Your task to perform on an android device: set default search engine in the chrome app Image 0: 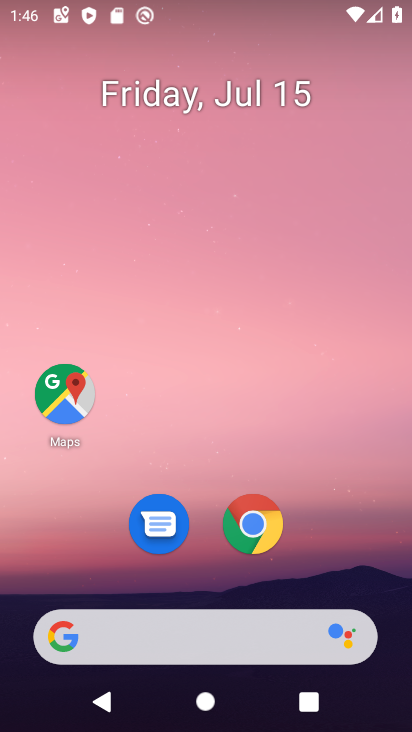
Step 0: press home button
Your task to perform on an android device: set default search engine in the chrome app Image 1: 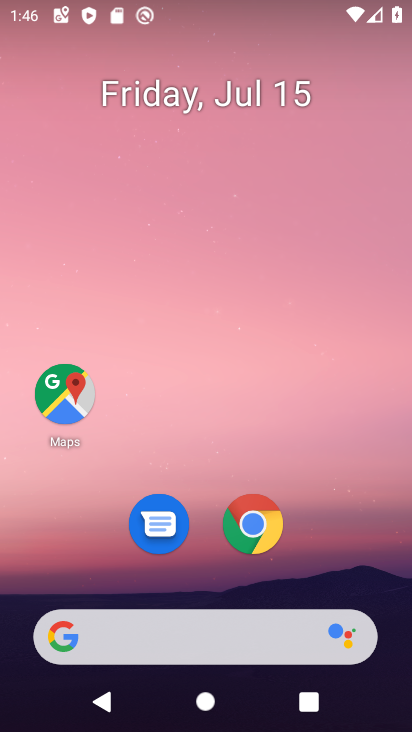
Step 1: click (255, 541)
Your task to perform on an android device: set default search engine in the chrome app Image 2: 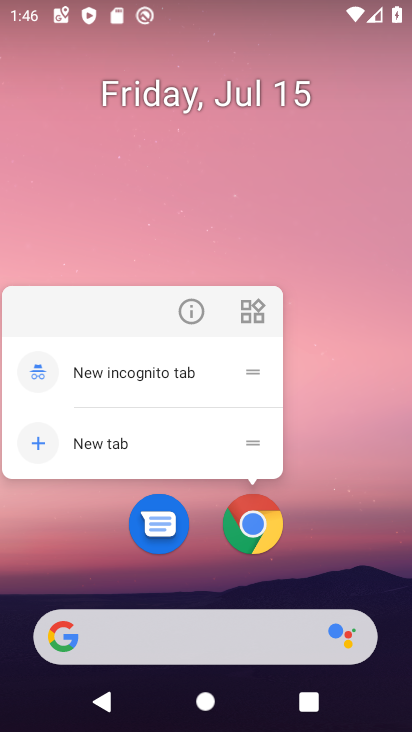
Step 2: click (250, 517)
Your task to perform on an android device: set default search engine in the chrome app Image 3: 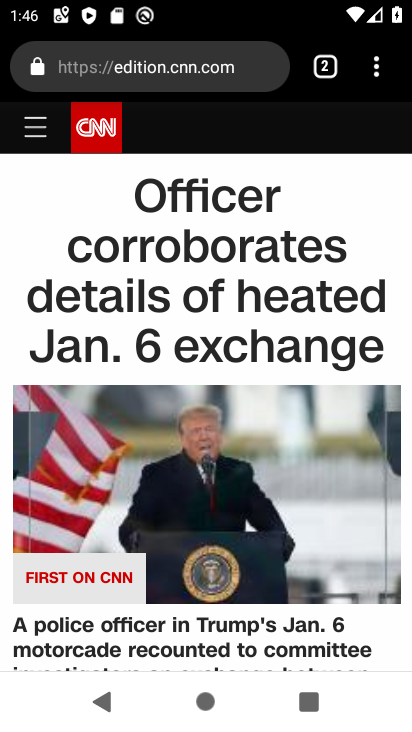
Step 3: drag from (374, 73) to (186, 534)
Your task to perform on an android device: set default search engine in the chrome app Image 4: 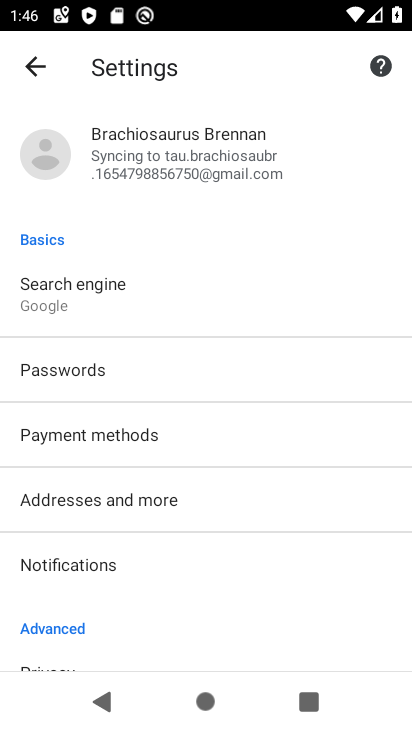
Step 4: click (74, 272)
Your task to perform on an android device: set default search engine in the chrome app Image 5: 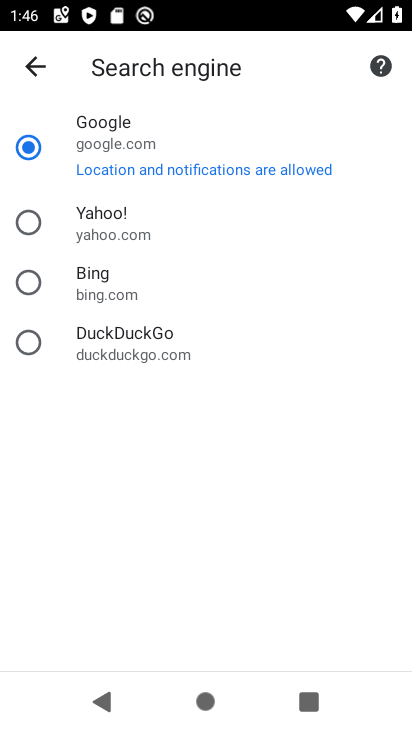
Step 5: click (27, 222)
Your task to perform on an android device: set default search engine in the chrome app Image 6: 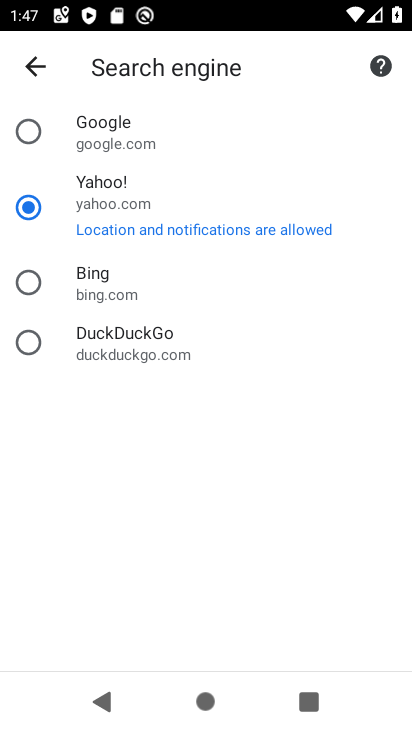
Step 6: task complete